Your task to perform on an android device: Open wifi settings Image 0: 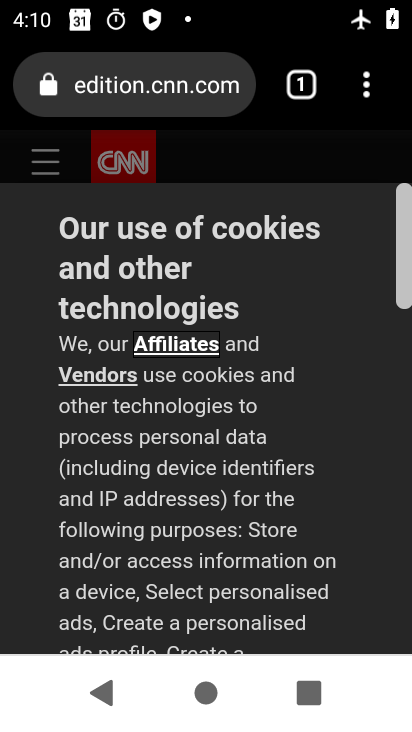
Step 0: press home button
Your task to perform on an android device: Open wifi settings Image 1: 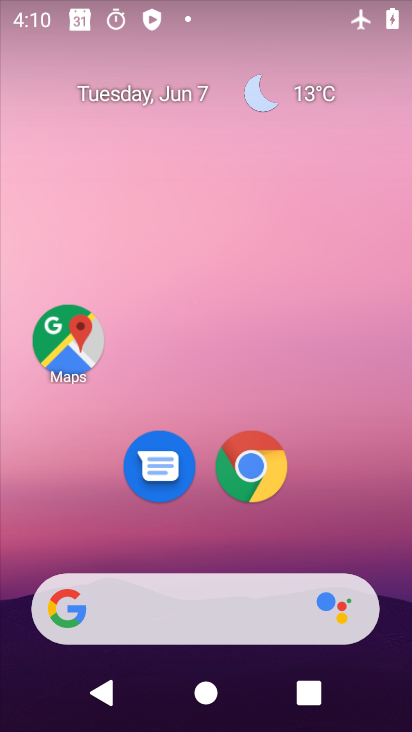
Step 1: drag from (378, 545) to (275, 125)
Your task to perform on an android device: Open wifi settings Image 2: 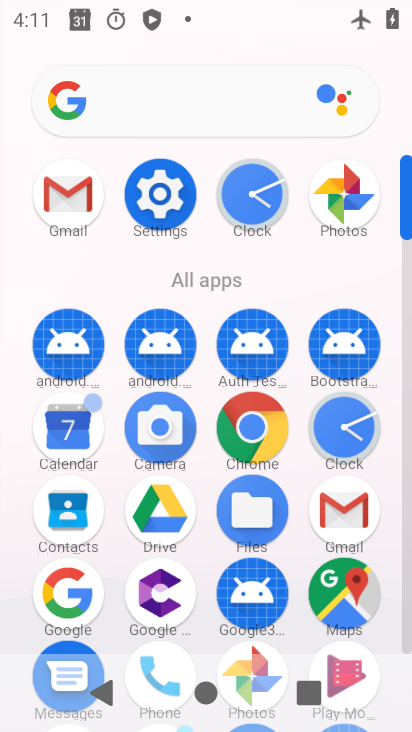
Step 2: click (150, 186)
Your task to perform on an android device: Open wifi settings Image 3: 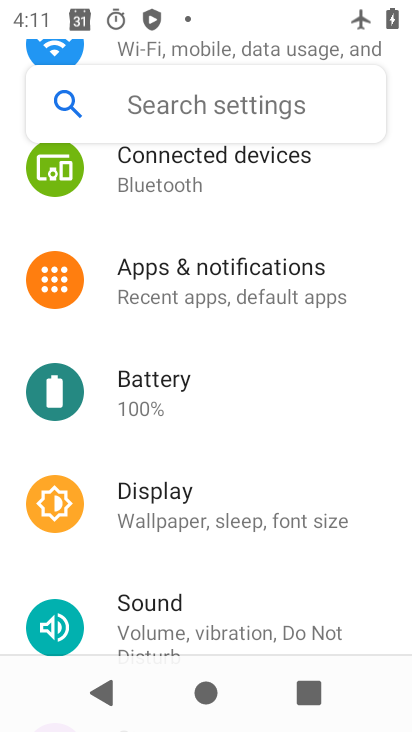
Step 3: drag from (219, 194) to (247, 506)
Your task to perform on an android device: Open wifi settings Image 4: 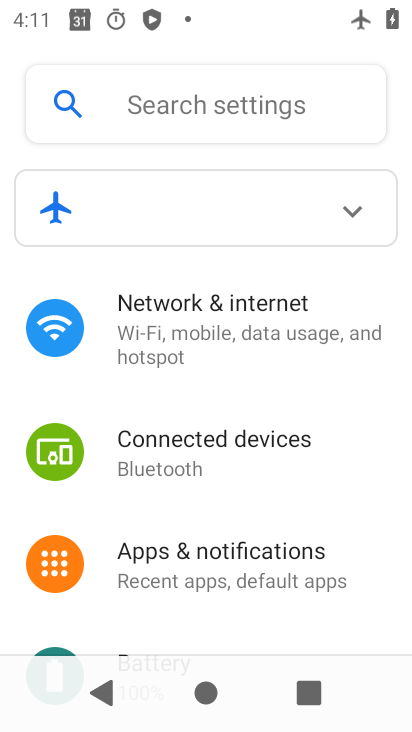
Step 4: click (225, 310)
Your task to perform on an android device: Open wifi settings Image 5: 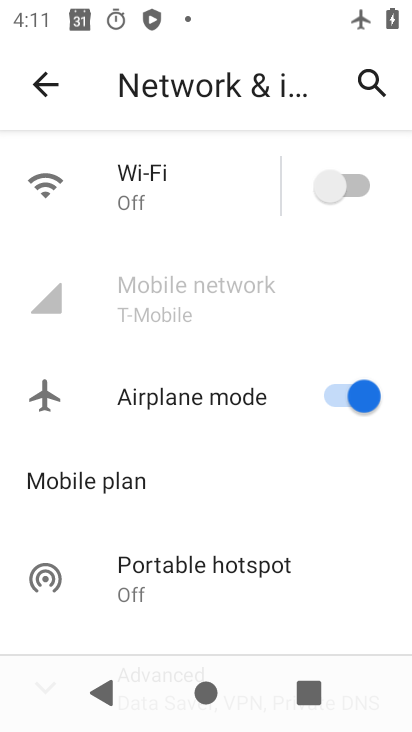
Step 5: click (153, 205)
Your task to perform on an android device: Open wifi settings Image 6: 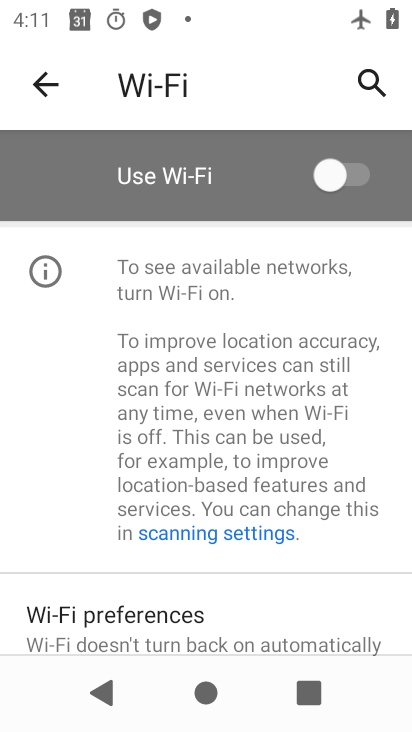
Step 6: task complete